Your task to perform on an android device: clear all cookies in the chrome app Image 0: 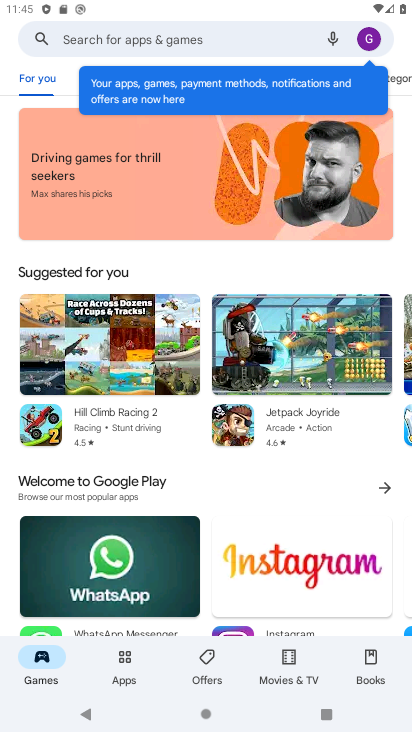
Step 0: press home button
Your task to perform on an android device: clear all cookies in the chrome app Image 1: 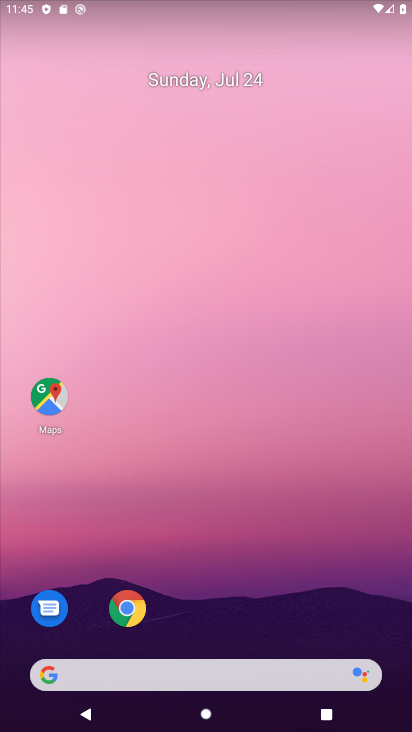
Step 1: click (127, 594)
Your task to perform on an android device: clear all cookies in the chrome app Image 2: 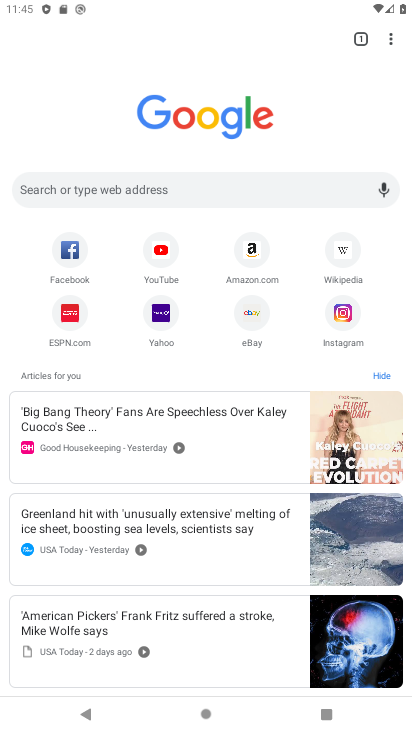
Step 2: click (387, 40)
Your task to perform on an android device: clear all cookies in the chrome app Image 3: 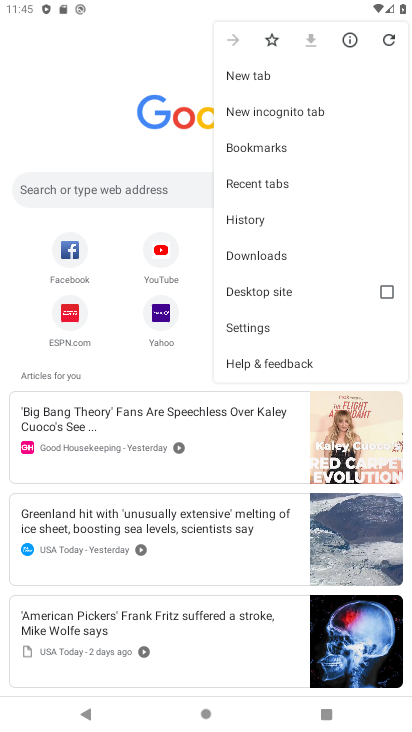
Step 3: click (256, 325)
Your task to perform on an android device: clear all cookies in the chrome app Image 4: 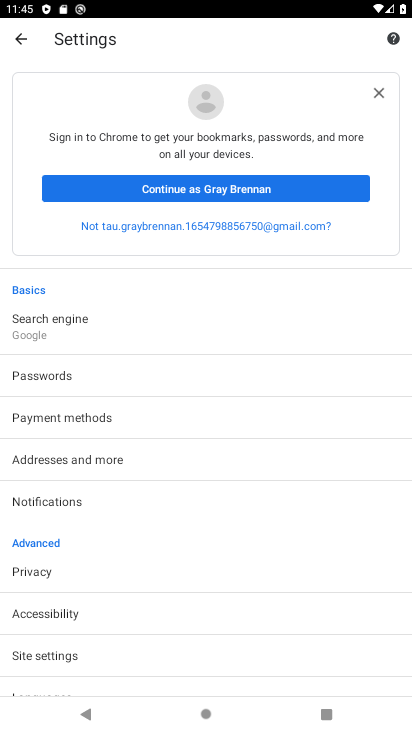
Step 4: click (80, 569)
Your task to perform on an android device: clear all cookies in the chrome app Image 5: 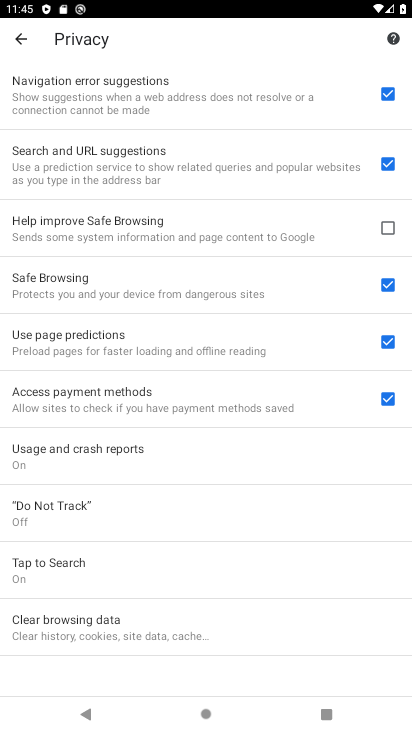
Step 5: click (54, 605)
Your task to perform on an android device: clear all cookies in the chrome app Image 6: 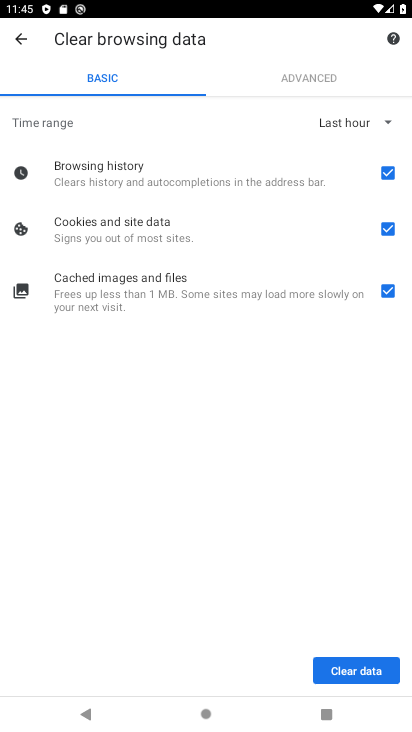
Step 6: click (389, 167)
Your task to perform on an android device: clear all cookies in the chrome app Image 7: 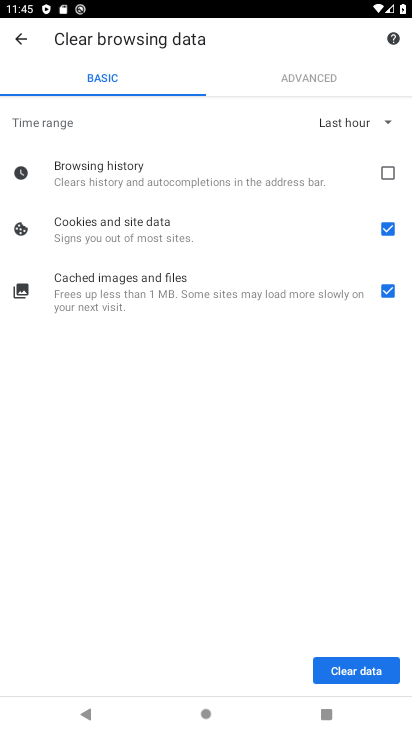
Step 7: click (387, 285)
Your task to perform on an android device: clear all cookies in the chrome app Image 8: 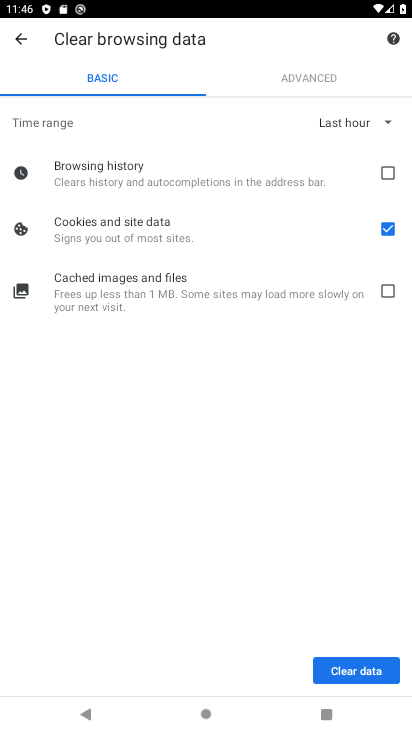
Step 8: click (373, 679)
Your task to perform on an android device: clear all cookies in the chrome app Image 9: 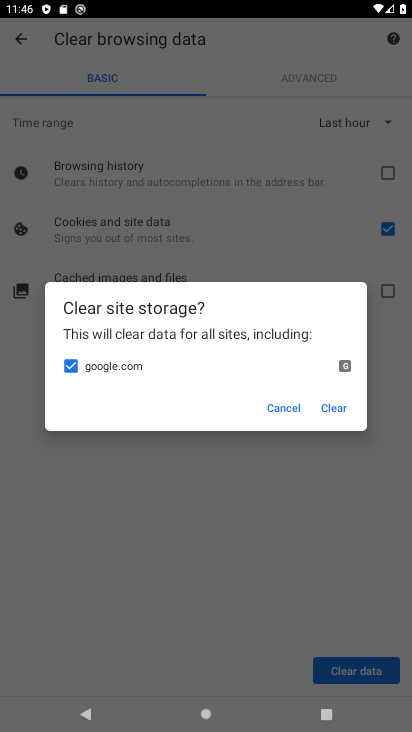
Step 9: click (343, 416)
Your task to perform on an android device: clear all cookies in the chrome app Image 10: 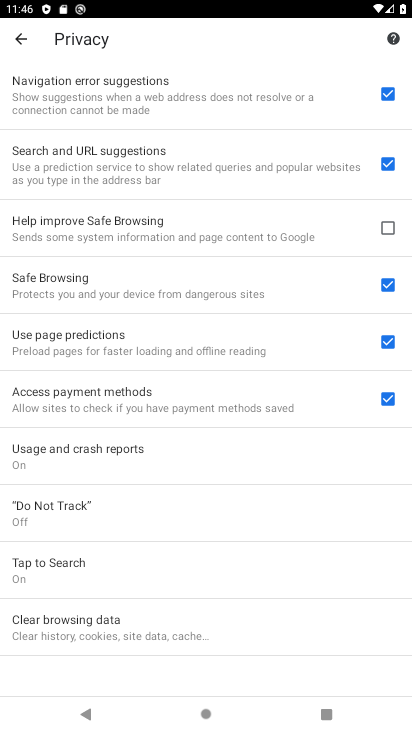
Step 10: task complete